Your task to perform on an android device: Open privacy settings Image 0: 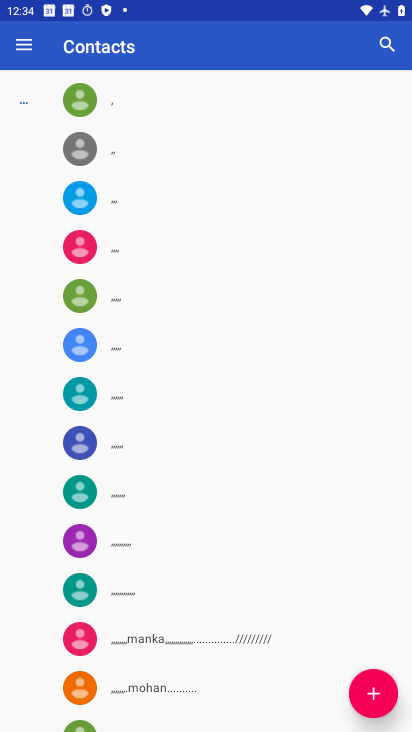
Step 0: press home button
Your task to perform on an android device: Open privacy settings Image 1: 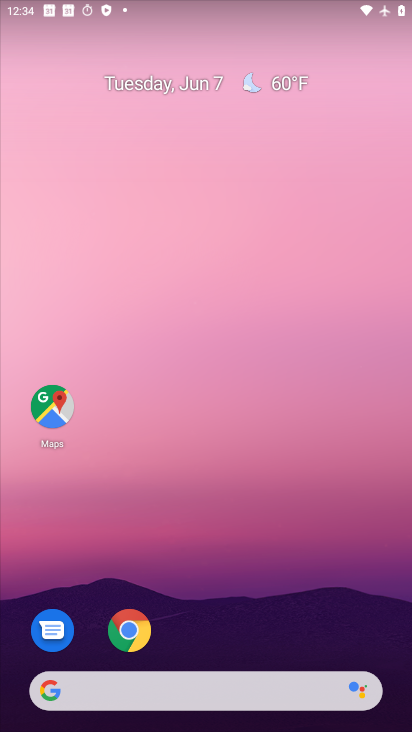
Step 1: drag from (342, 591) to (252, 54)
Your task to perform on an android device: Open privacy settings Image 2: 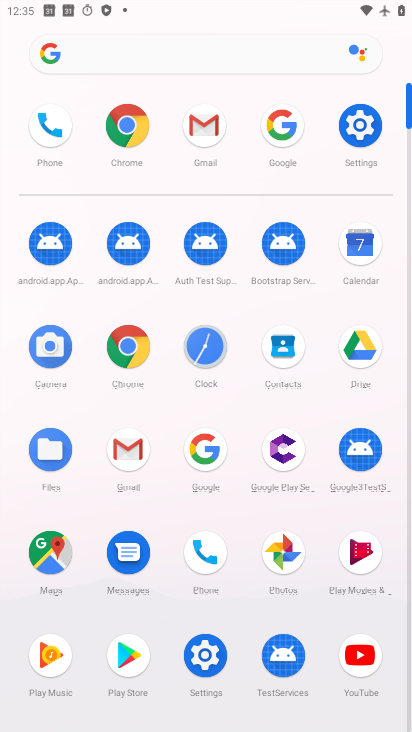
Step 2: click (209, 651)
Your task to perform on an android device: Open privacy settings Image 3: 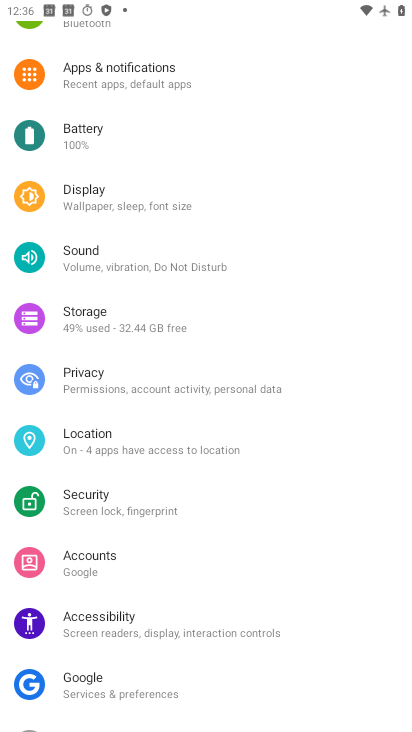
Step 3: click (111, 391)
Your task to perform on an android device: Open privacy settings Image 4: 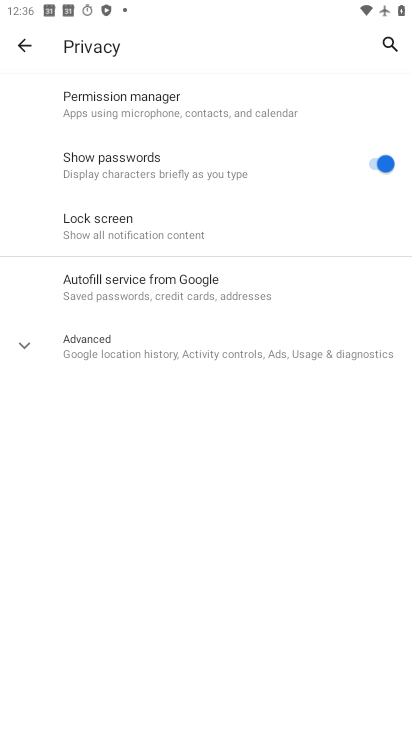
Step 4: task complete